Your task to perform on an android device: turn notification dots on Image 0: 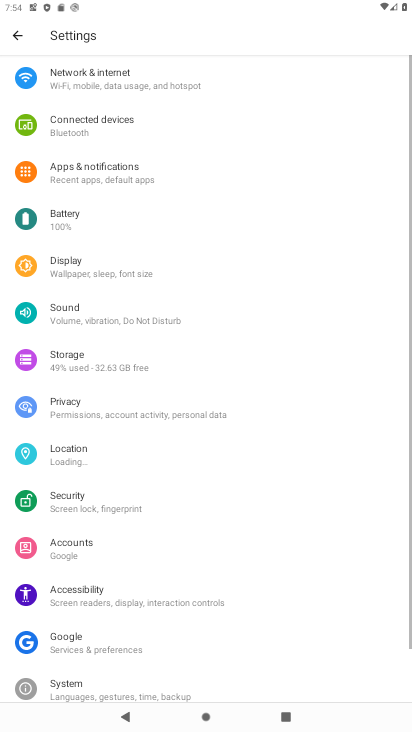
Step 0: press home button
Your task to perform on an android device: turn notification dots on Image 1: 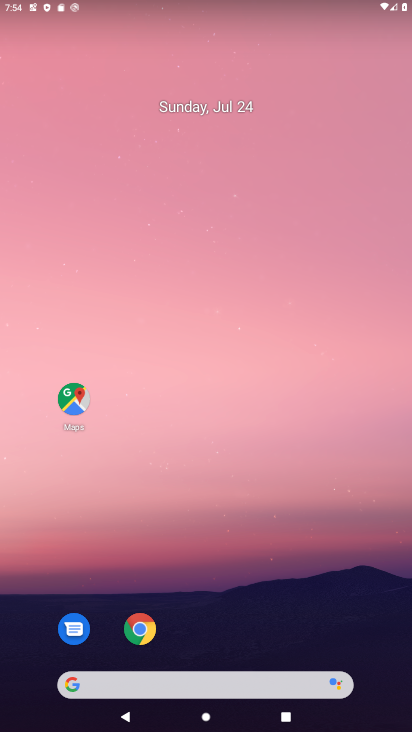
Step 1: drag from (362, 707) to (322, 72)
Your task to perform on an android device: turn notification dots on Image 2: 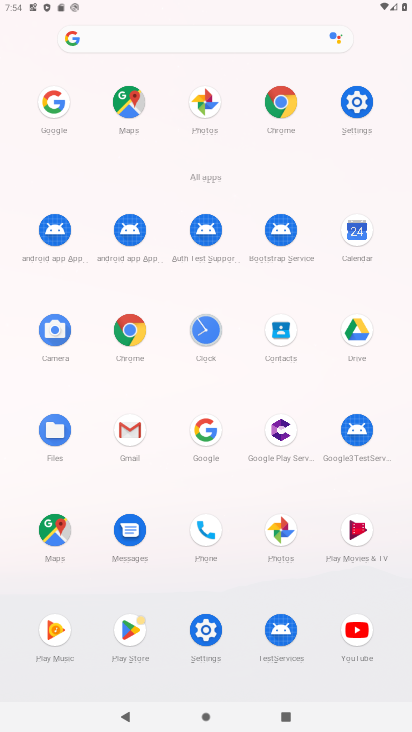
Step 2: click (365, 122)
Your task to perform on an android device: turn notification dots on Image 3: 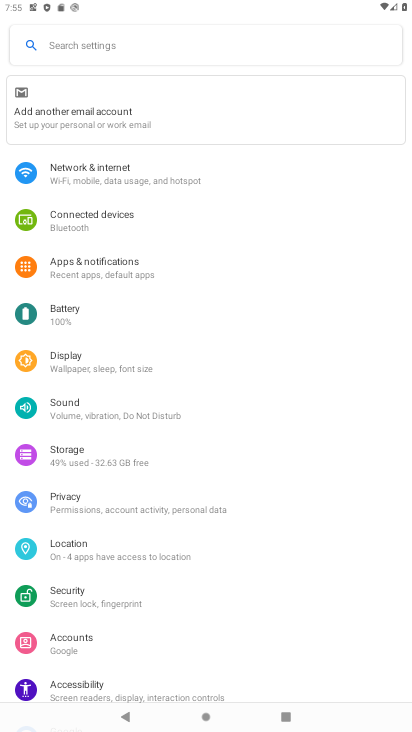
Step 3: click (110, 282)
Your task to perform on an android device: turn notification dots on Image 4: 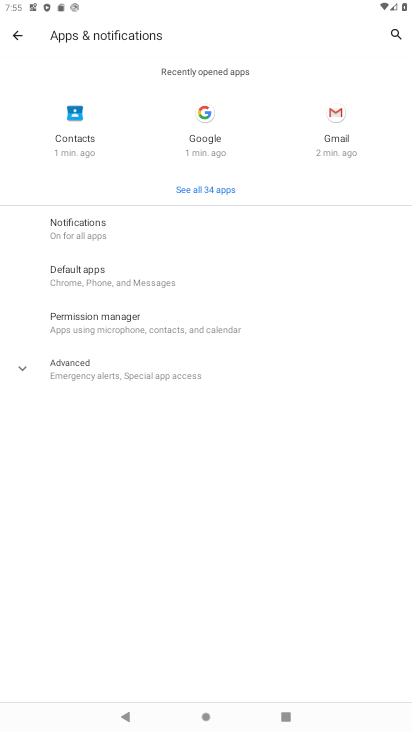
Step 4: click (142, 227)
Your task to perform on an android device: turn notification dots on Image 5: 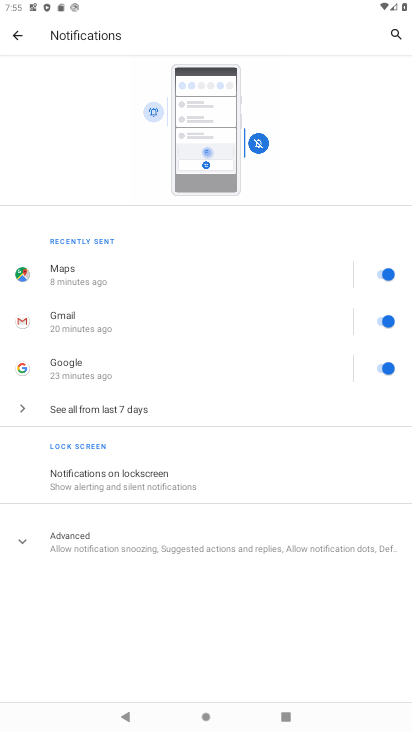
Step 5: click (109, 552)
Your task to perform on an android device: turn notification dots on Image 6: 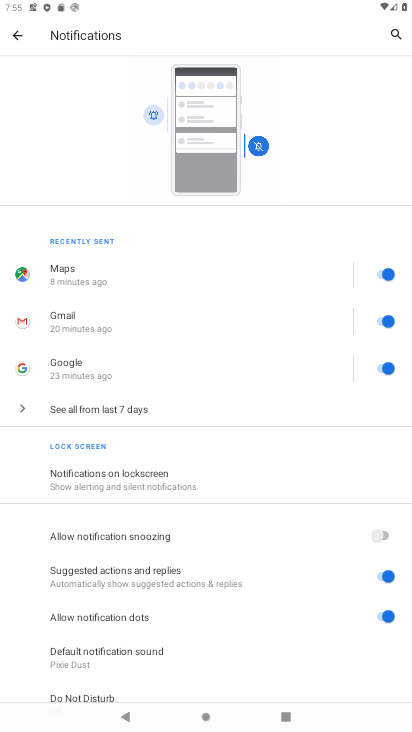
Step 6: task complete